Your task to perform on an android device: Open display settings Image 0: 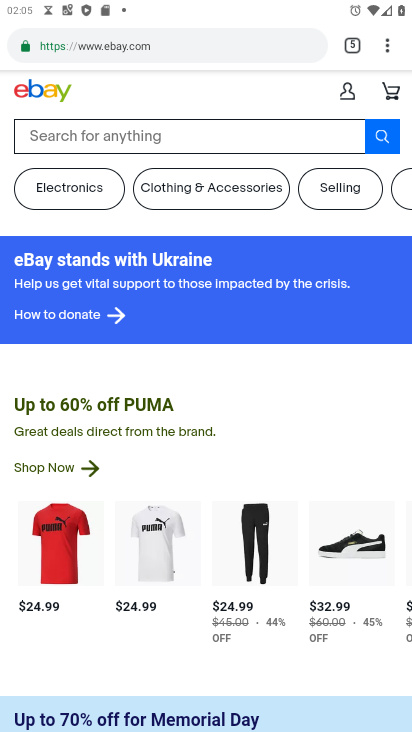
Step 0: press home button
Your task to perform on an android device: Open display settings Image 1: 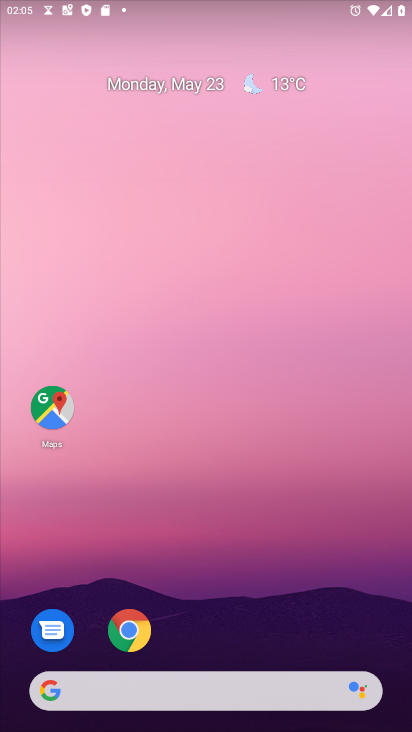
Step 1: drag from (245, 482) to (201, 87)
Your task to perform on an android device: Open display settings Image 2: 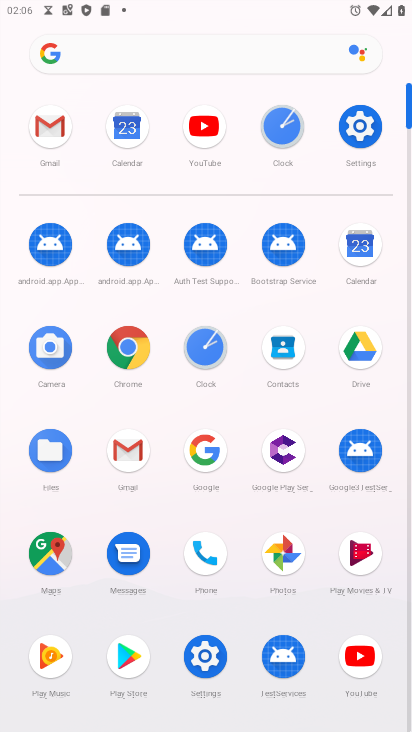
Step 2: click (355, 125)
Your task to perform on an android device: Open display settings Image 3: 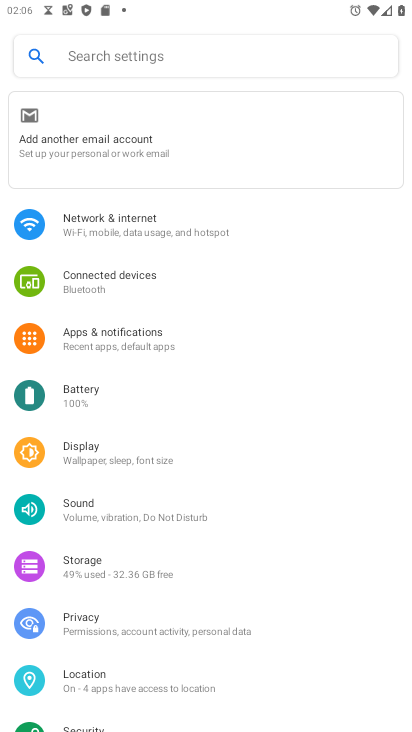
Step 3: click (173, 449)
Your task to perform on an android device: Open display settings Image 4: 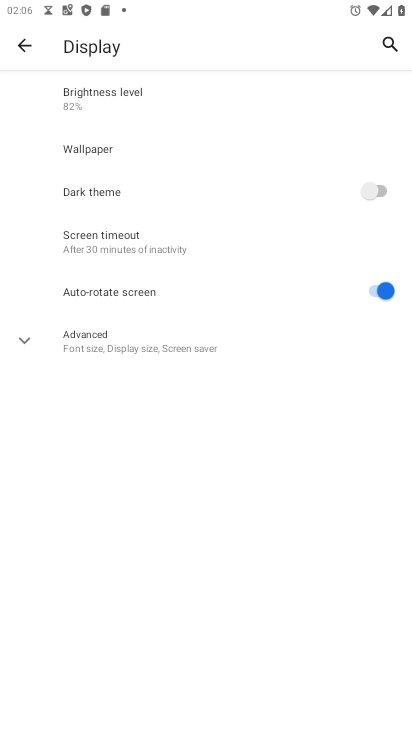
Step 4: task complete